Your task to perform on an android device: change the clock style Image 0: 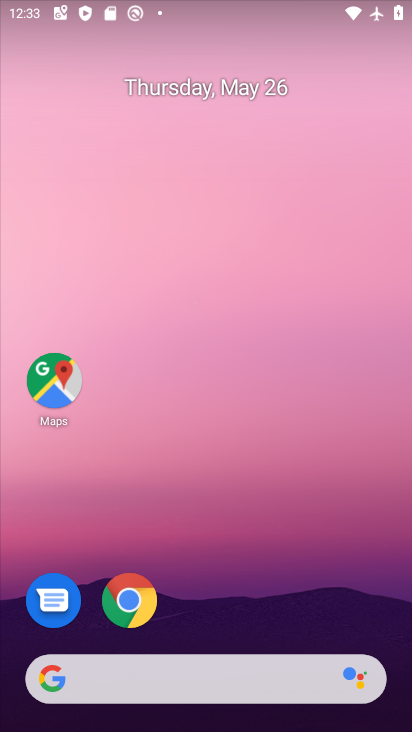
Step 0: drag from (297, 562) to (273, 95)
Your task to perform on an android device: change the clock style Image 1: 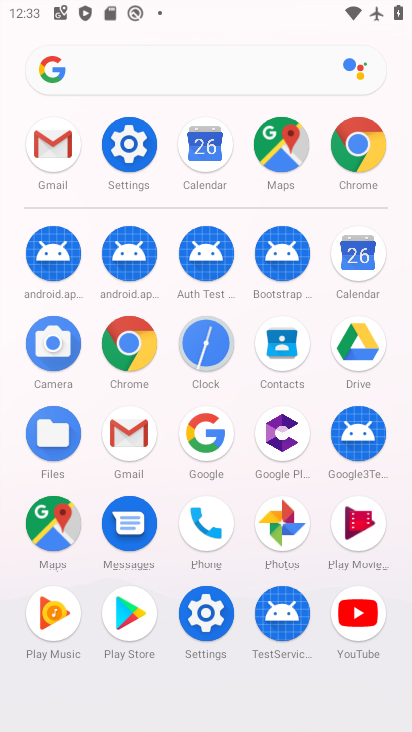
Step 1: click (135, 122)
Your task to perform on an android device: change the clock style Image 2: 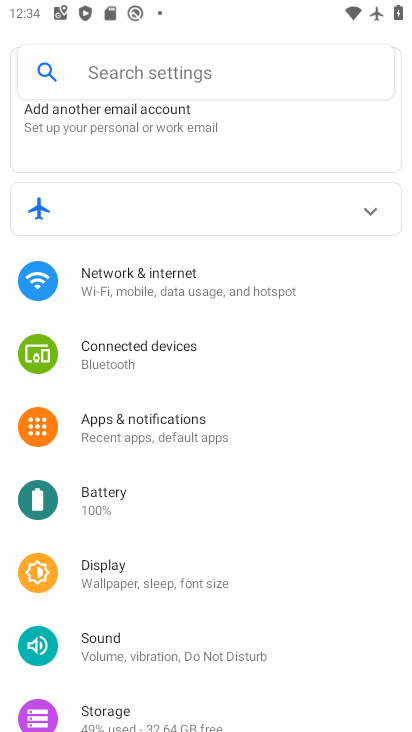
Step 2: press home button
Your task to perform on an android device: change the clock style Image 3: 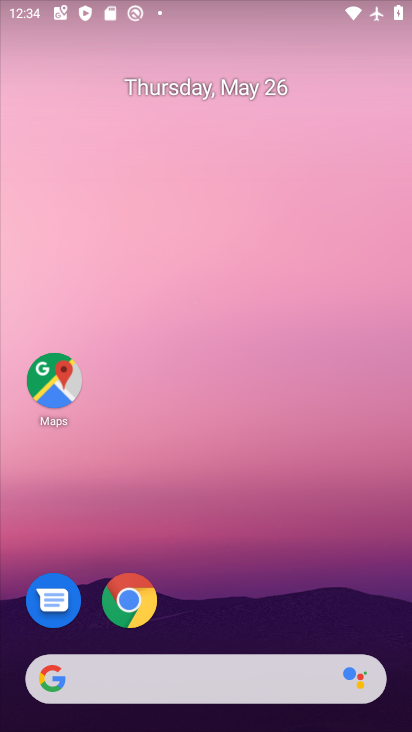
Step 3: drag from (228, 558) to (200, 153)
Your task to perform on an android device: change the clock style Image 4: 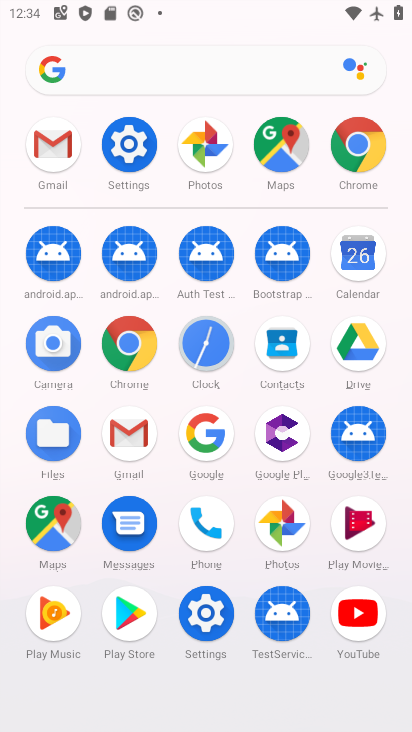
Step 4: click (218, 337)
Your task to perform on an android device: change the clock style Image 5: 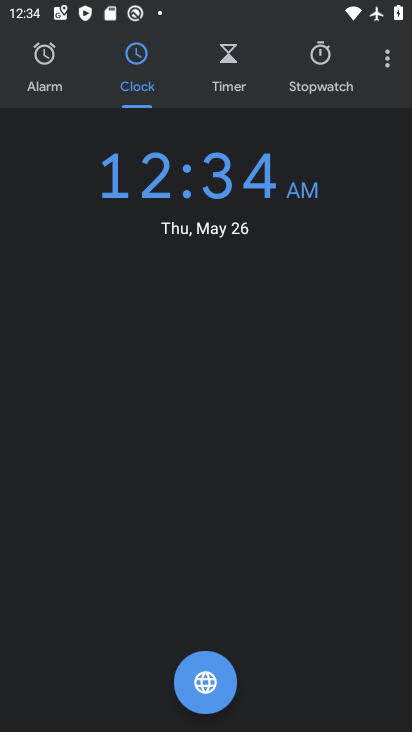
Step 5: click (389, 55)
Your task to perform on an android device: change the clock style Image 6: 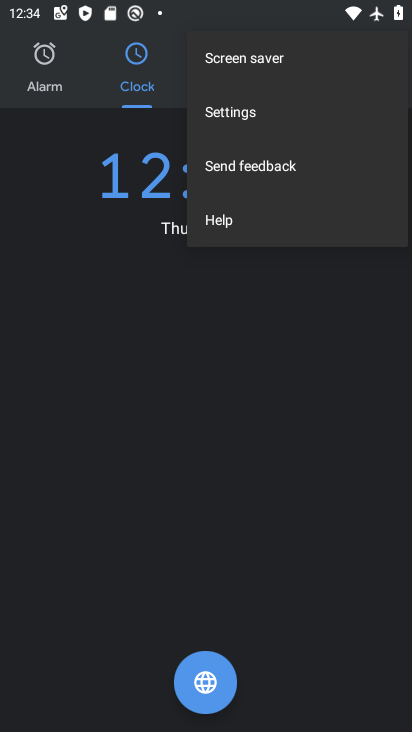
Step 6: click (247, 119)
Your task to perform on an android device: change the clock style Image 7: 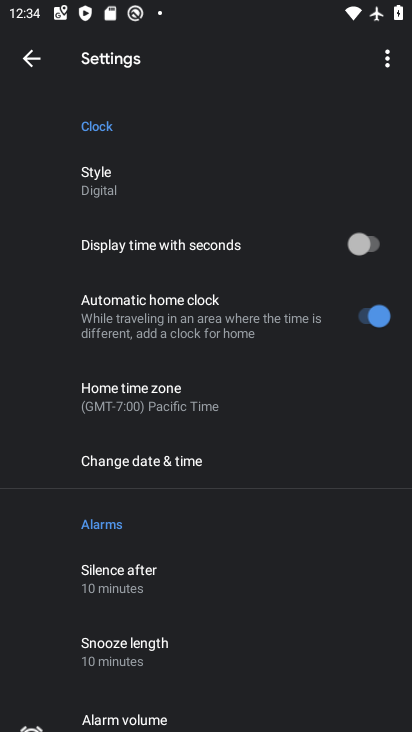
Step 7: click (126, 170)
Your task to perform on an android device: change the clock style Image 8: 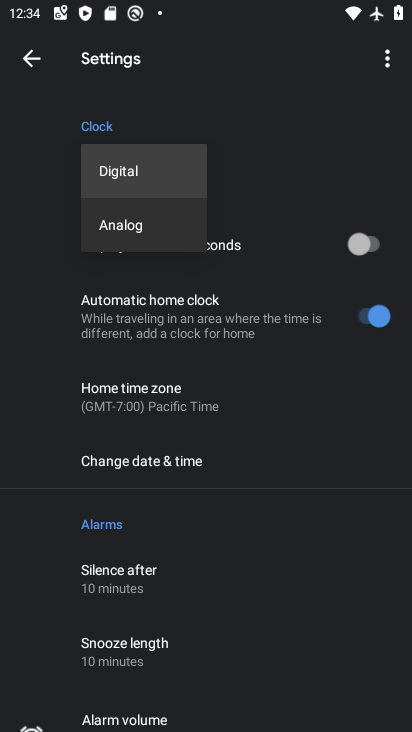
Step 8: click (140, 221)
Your task to perform on an android device: change the clock style Image 9: 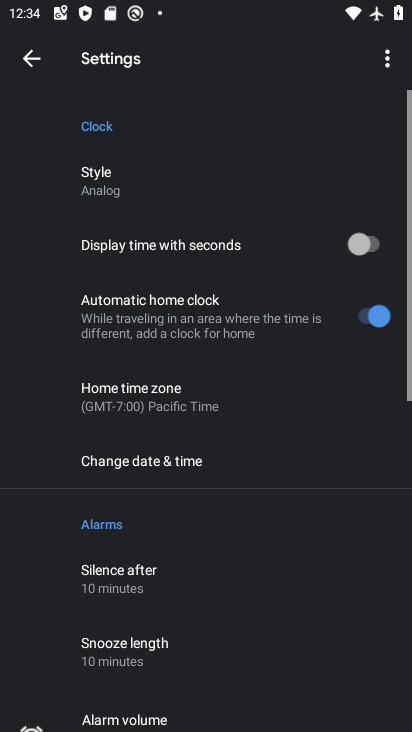
Step 9: task complete